Your task to perform on an android device: Go to calendar. Show me events next week Image 0: 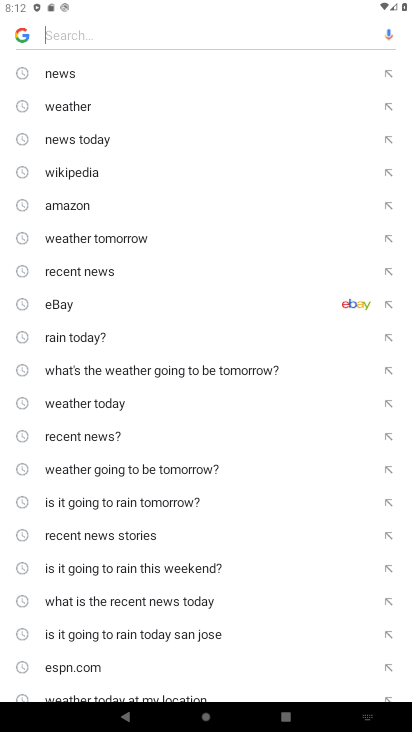
Step 0: press home button
Your task to perform on an android device: Go to calendar. Show me events next week Image 1: 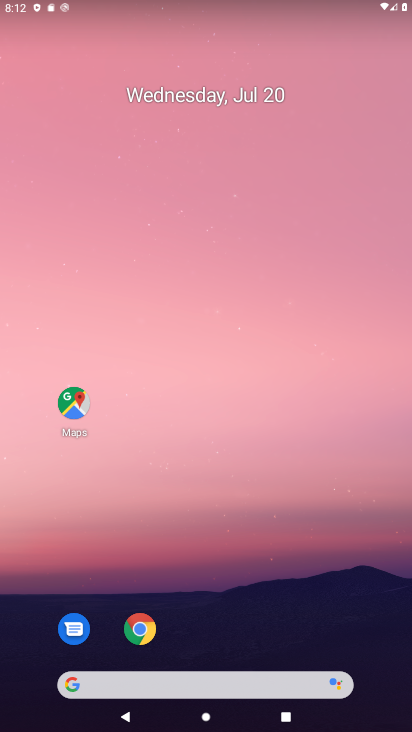
Step 1: drag from (196, 638) to (201, 233)
Your task to perform on an android device: Go to calendar. Show me events next week Image 2: 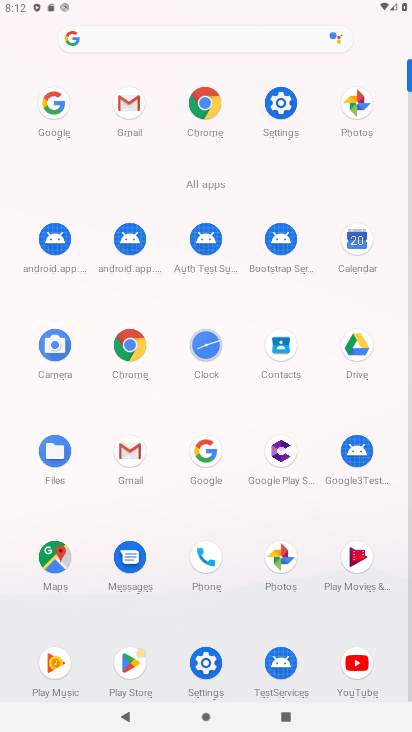
Step 2: click (357, 252)
Your task to perform on an android device: Go to calendar. Show me events next week Image 3: 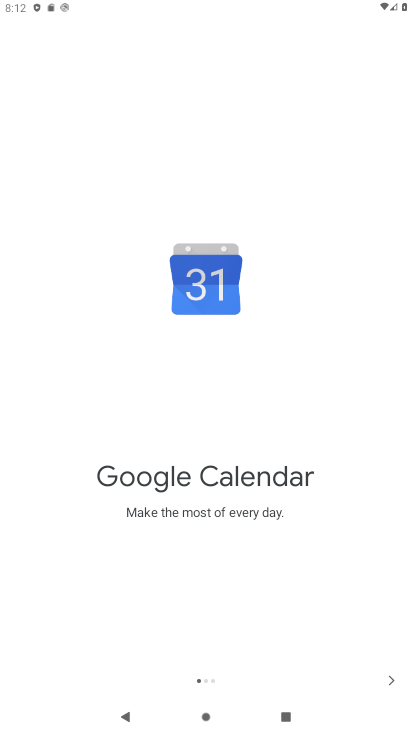
Step 3: click (390, 668)
Your task to perform on an android device: Go to calendar. Show me events next week Image 4: 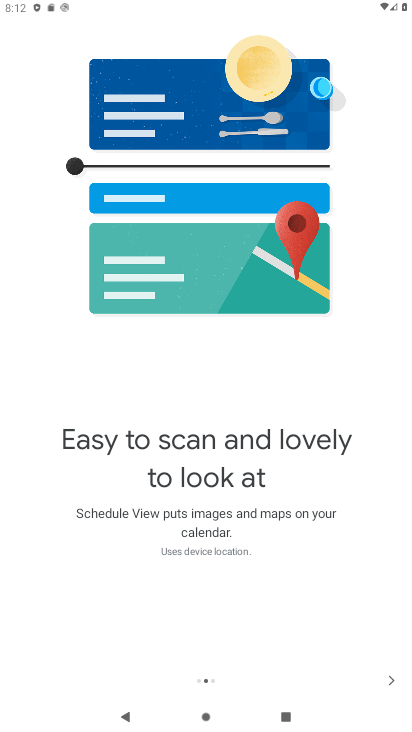
Step 4: click (388, 667)
Your task to perform on an android device: Go to calendar. Show me events next week Image 5: 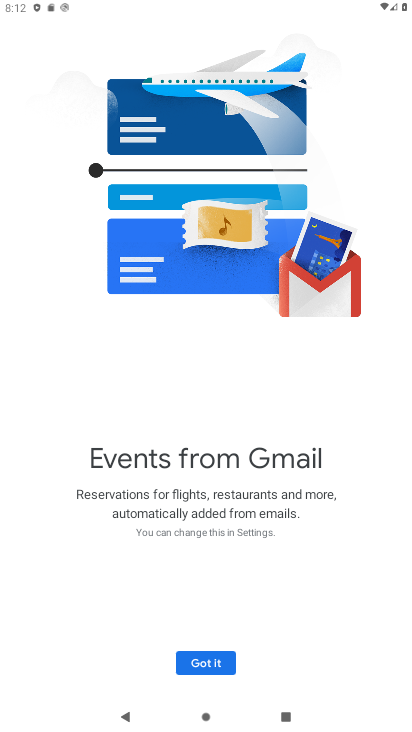
Step 5: click (210, 660)
Your task to perform on an android device: Go to calendar. Show me events next week Image 6: 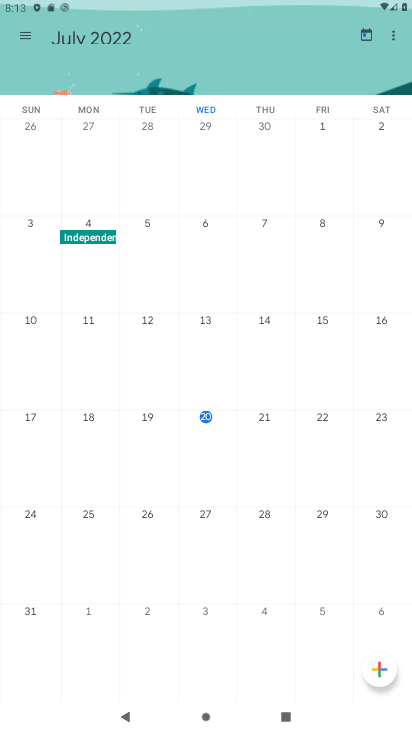
Step 6: click (67, 531)
Your task to perform on an android device: Go to calendar. Show me events next week Image 7: 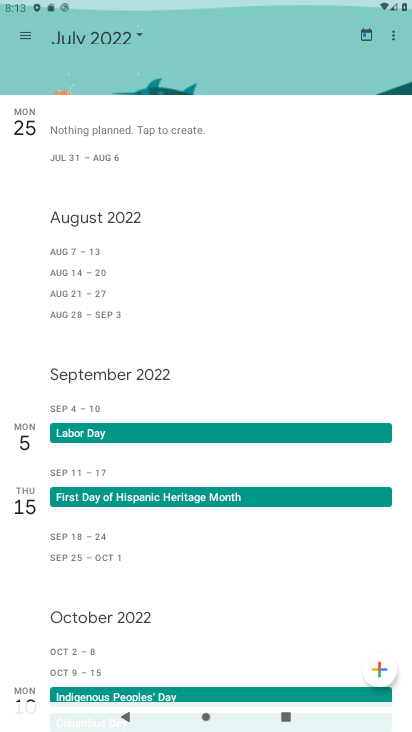
Step 7: click (143, 33)
Your task to perform on an android device: Go to calendar. Show me events next week Image 8: 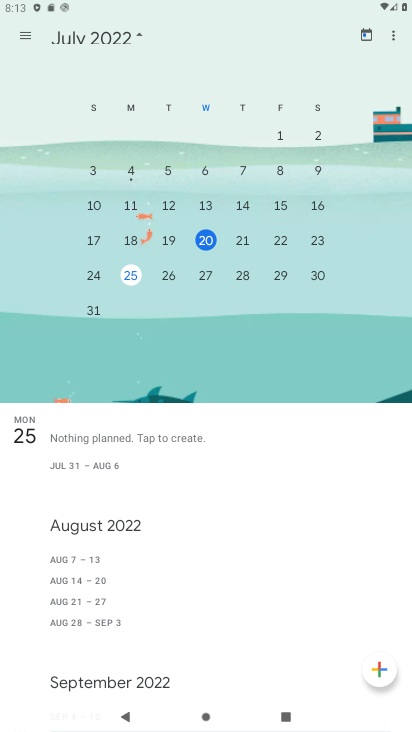
Step 8: click (25, 32)
Your task to perform on an android device: Go to calendar. Show me events next week Image 9: 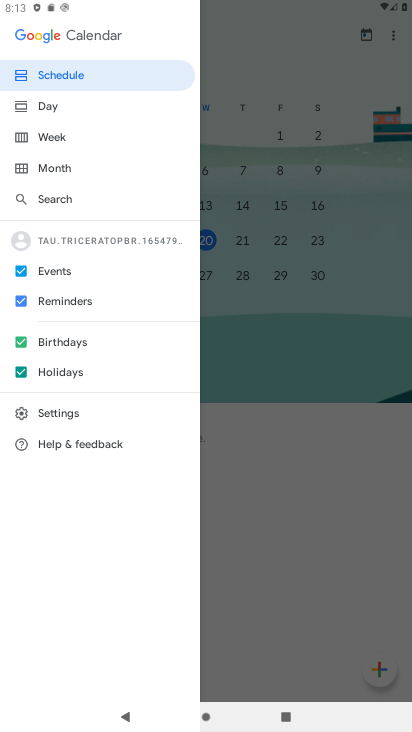
Step 9: click (270, 134)
Your task to perform on an android device: Go to calendar. Show me events next week Image 10: 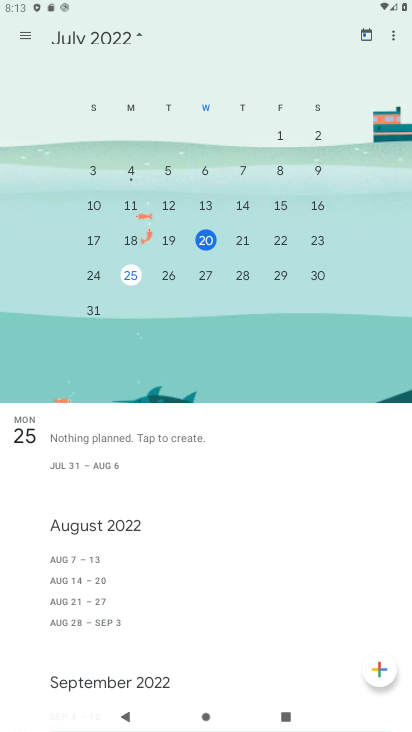
Step 10: click (100, 270)
Your task to perform on an android device: Go to calendar. Show me events next week Image 11: 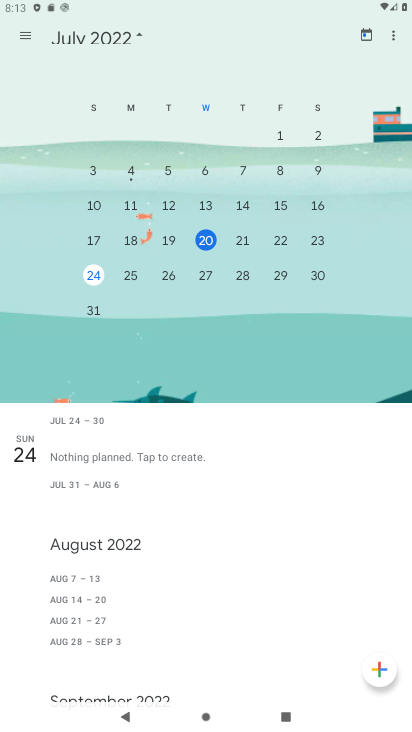
Step 11: task complete